Your task to perform on an android device: toggle priority inbox in the gmail app Image 0: 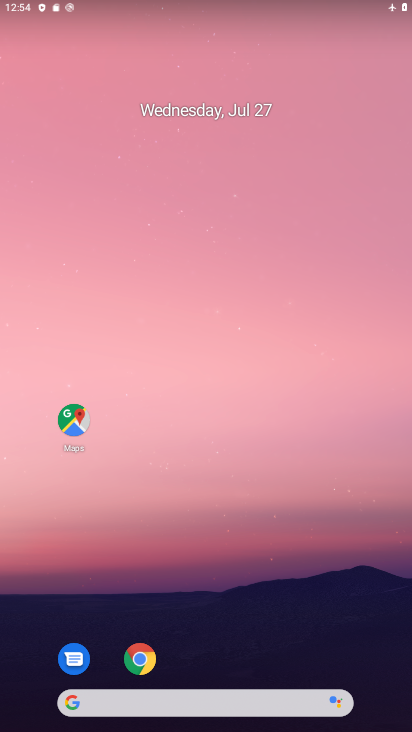
Step 0: drag from (290, 674) to (124, 92)
Your task to perform on an android device: toggle priority inbox in the gmail app Image 1: 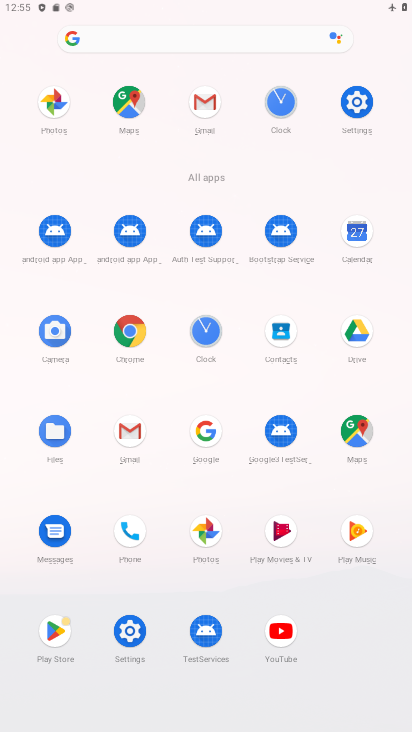
Step 1: click (119, 440)
Your task to perform on an android device: toggle priority inbox in the gmail app Image 2: 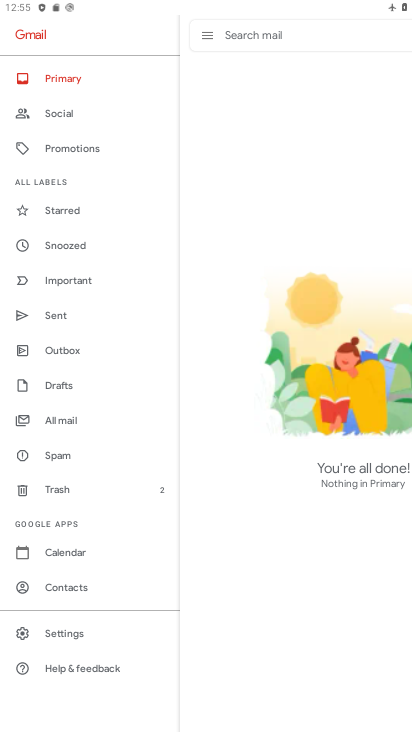
Step 2: click (39, 638)
Your task to perform on an android device: toggle priority inbox in the gmail app Image 3: 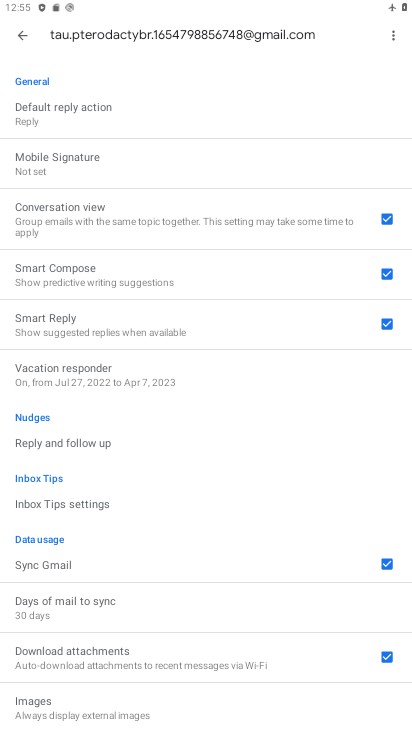
Step 3: drag from (83, 143) to (193, 638)
Your task to perform on an android device: toggle priority inbox in the gmail app Image 4: 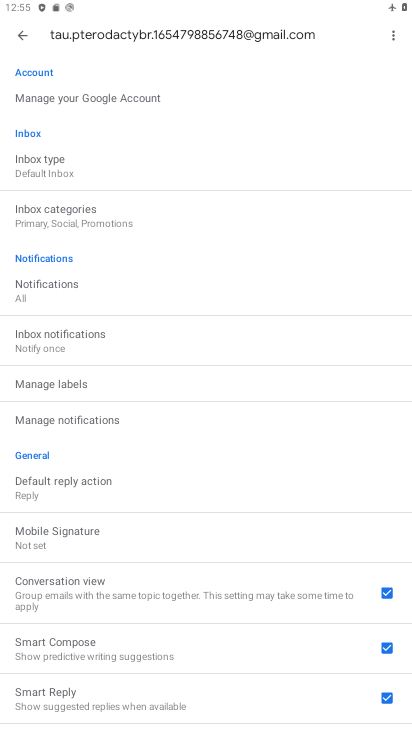
Step 4: click (29, 161)
Your task to perform on an android device: toggle priority inbox in the gmail app Image 5: 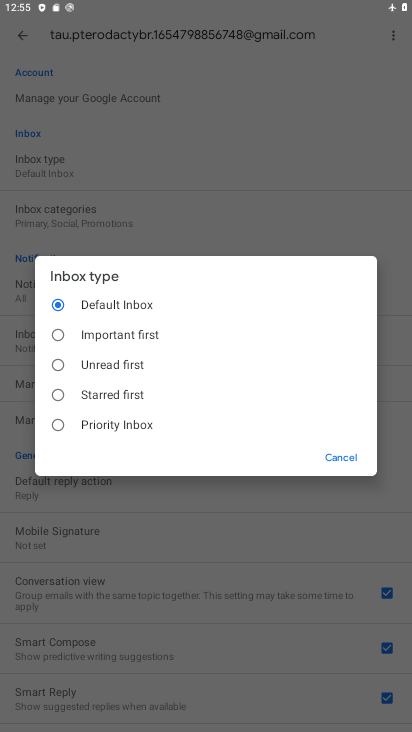
Step 5: click (89, 425)
Your task to perform on an android device: toggle priority inbox in the gmail app Image 6: 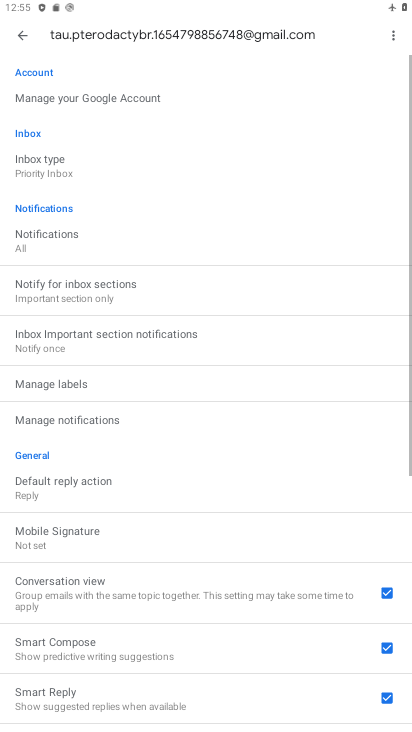
Step 6: task complete